Your task to perform on an android device: open device folders in google photos Image 0: 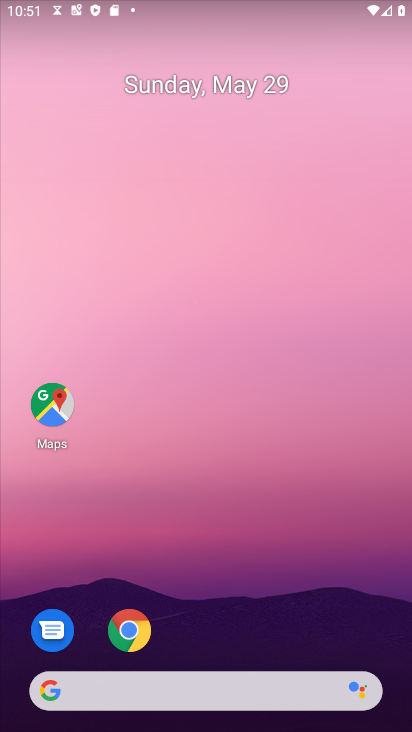
Step 0: drag from (178, 609) to (266, 338)
Your task to perform on an android device: open device folders in google photos Image 1: 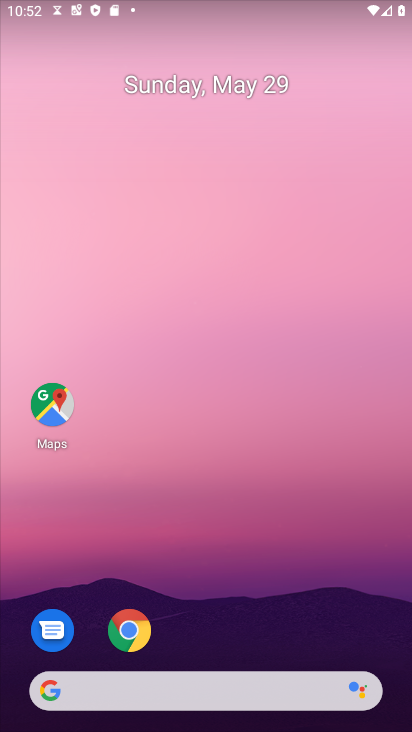
Step 1: drag from (225, 623) to (248, 399)
Your task to perform on an android device: open device folders in google photos Image 2: 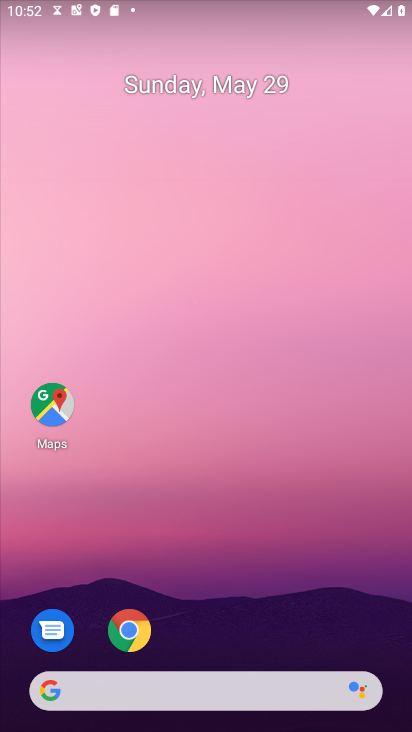
Step 2: drag from (264, 632) to (331, 173)
Your task to perform on an android device: open device folders in google photos Image 3: 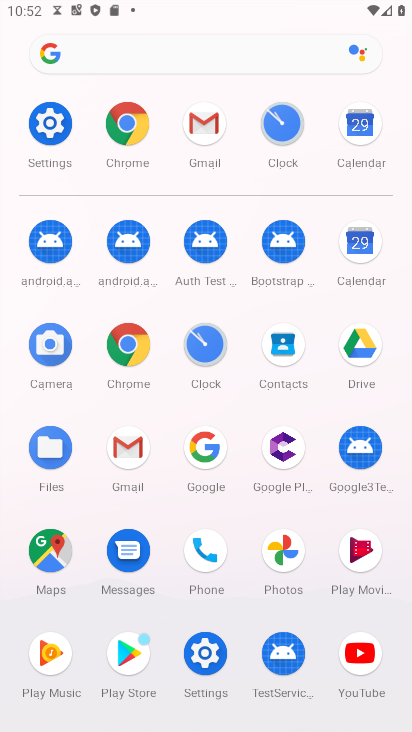
Step 3: click (283, 563)
Your task to perform on an android device: open device folders in google photos Image 4: 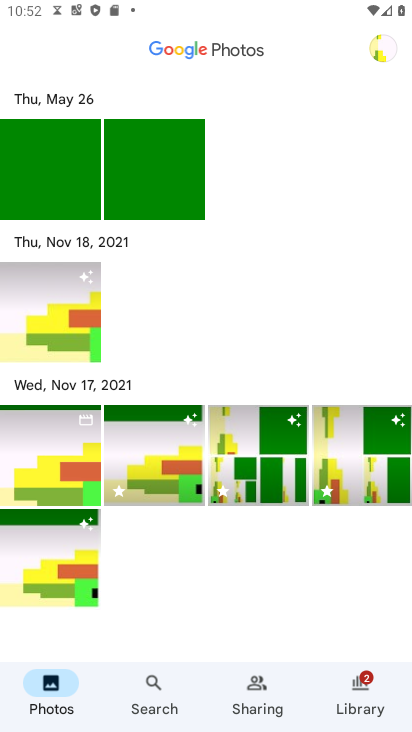
Step 4: click (379, 30)
Your task to perform on an android device: open device folders in google photos Image 5: 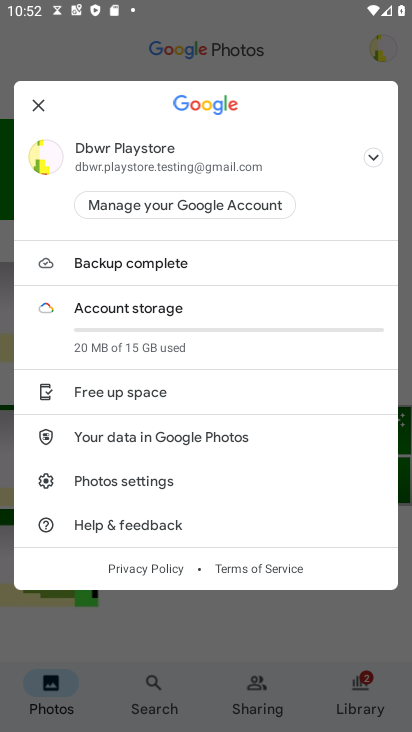
Step 5: click (98, 471)
Your task to perform on an android device: open device folders in google photos Image 6: 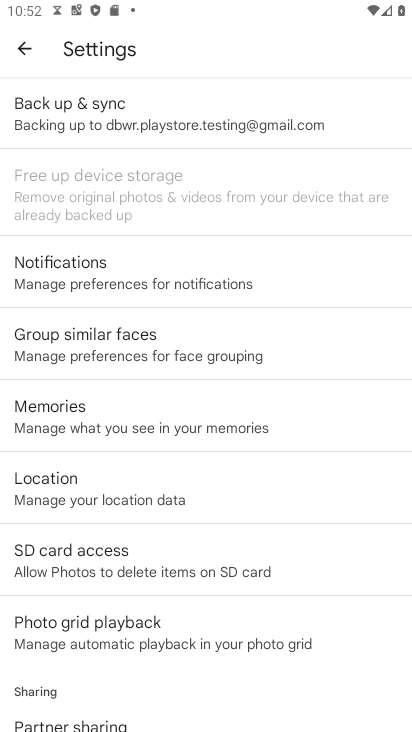
Step 6: drag from (170, 594) to (177, 523)
Your task to perform on an android device: open device folders in google photos Image 7: 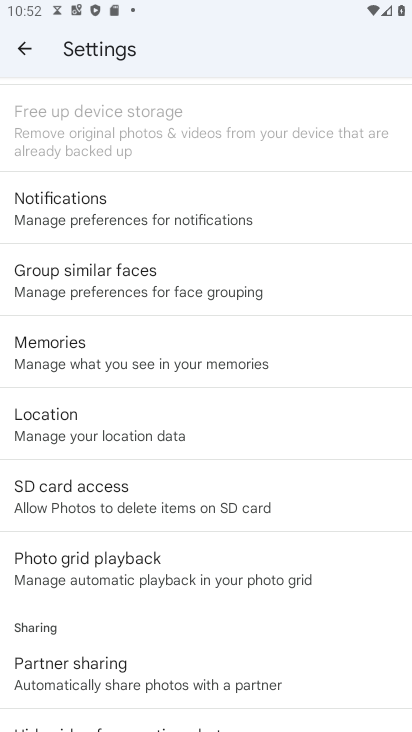
Step 7: drag from (204, 651) to (262, 355)
Your task to perform on an android device: open device folders in google photos Image 8: 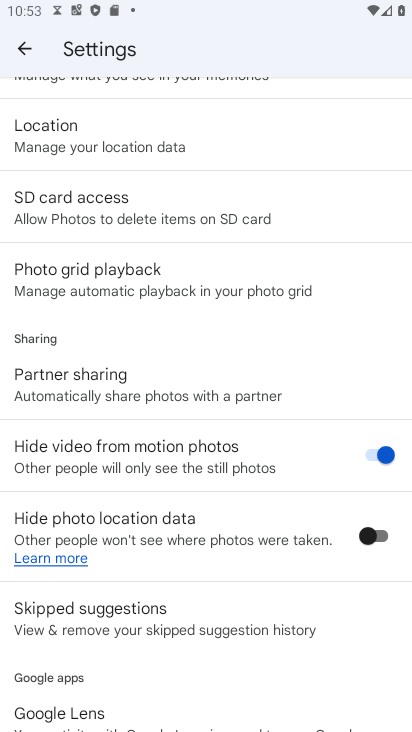
Step 8: drag from (110, 704) to (136, 372)
Your task to perform on an android device: open device folders in google photos Image 9: 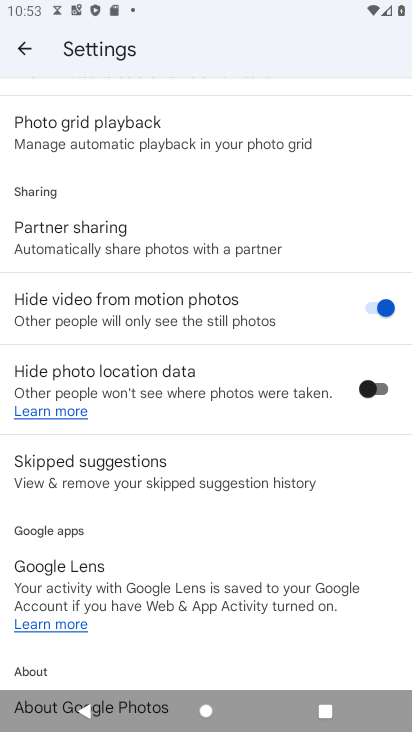
Step 9: drag from (161, 596) to (220, 407)
Your task to perform on an android device: open device folders in google photos Image 10: 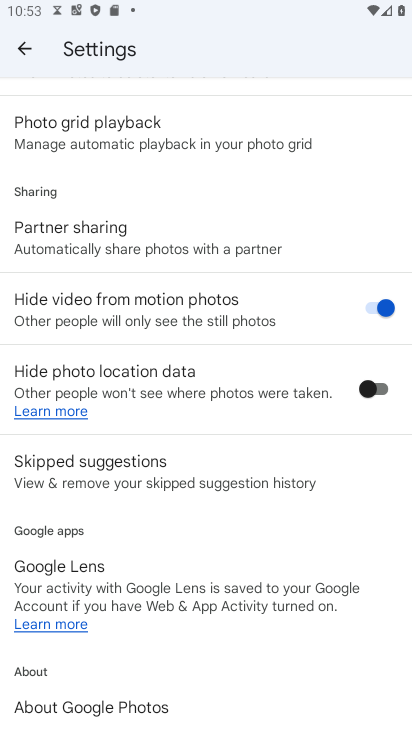
Step 10: click (175, 698)
Your task to perform on an android device: open device folders in google photos Image 11: 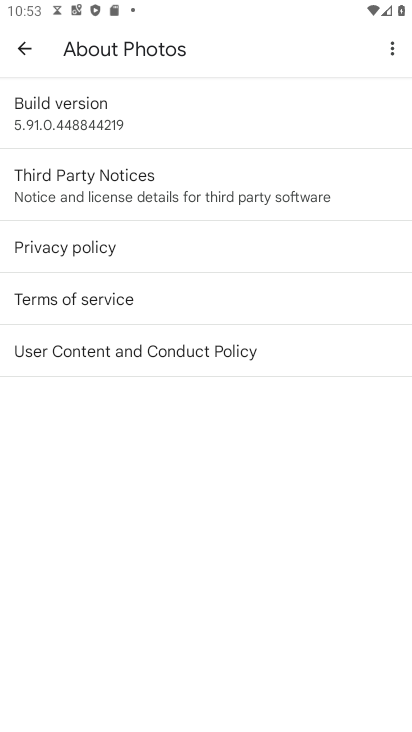
Step 11: task complete